Your task to perform on an android device: When is my next appointment? Image 0: 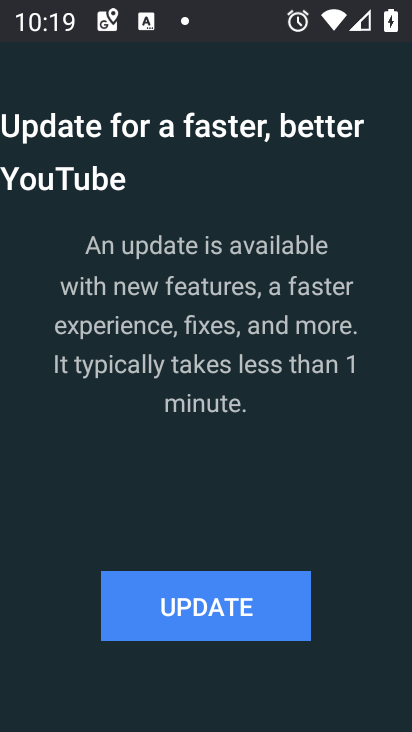
Step 0: press home button
Your task to perform on an android device: When is my next appointment? Image 1: 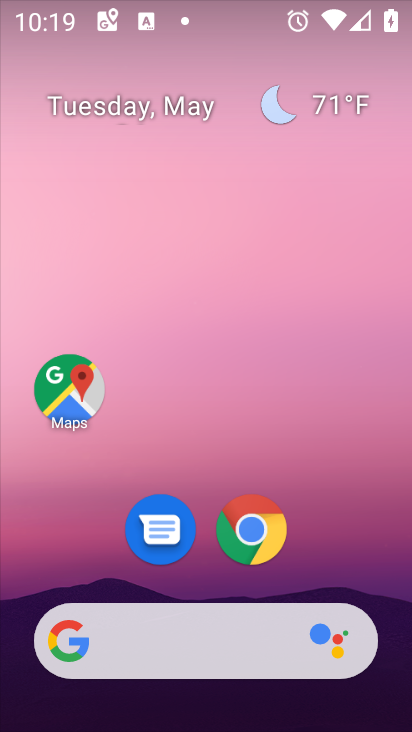
Step 1: drag from (243, 656) to (256, 144)
Your task to perform on an android device: When is my next appointment? Image 2: 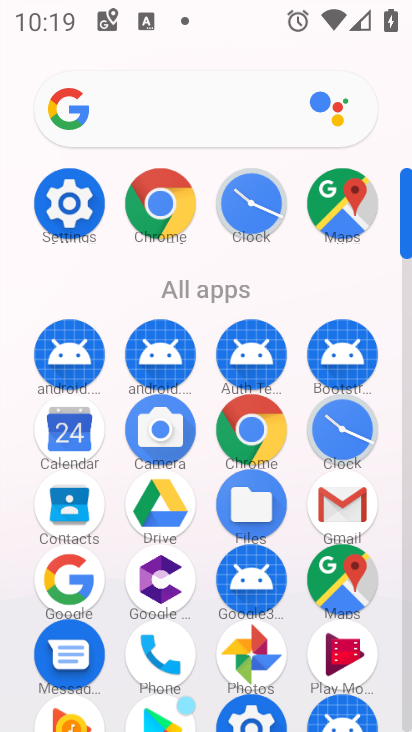
Step 2: click (256, 144)
Your task to perform on an android device: When is my next appointment? Image 3: 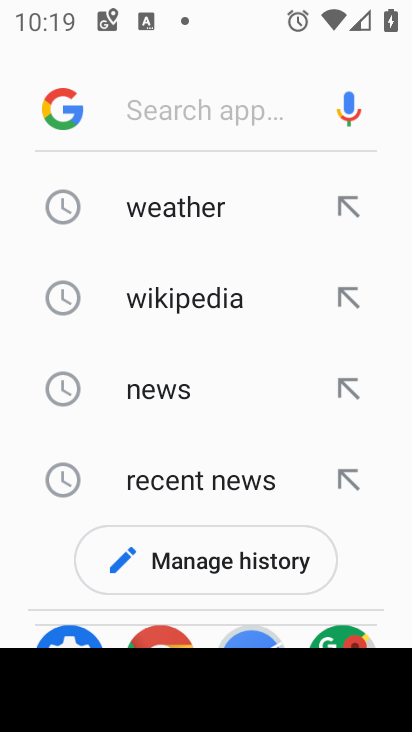
Step 3: click (256, 144)
Your task to perform on an android device: When is my next appointment? Image 4: 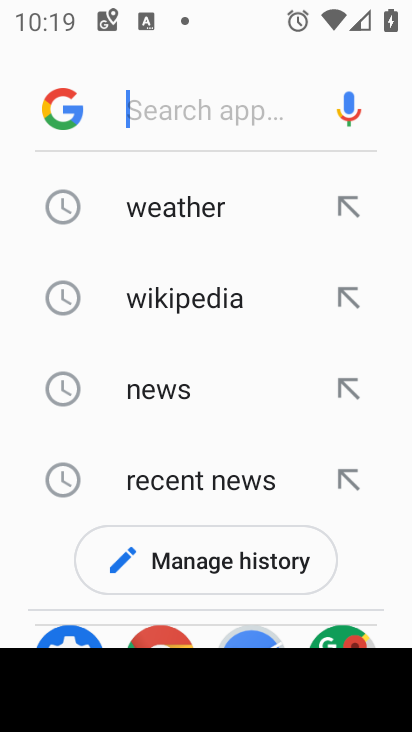
Step 4: click (256, 144)
Your task to perform on an android device: When is my next appointment? Image 5: 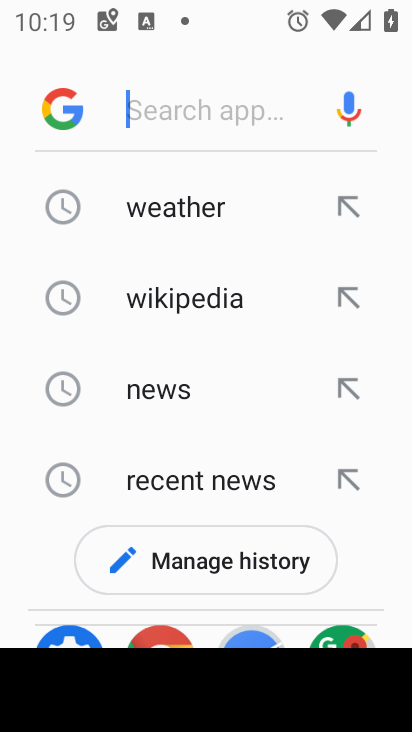
Step 5: click (256, 144)
Your task to perform on an android device: When is my next appointment? Image 6: 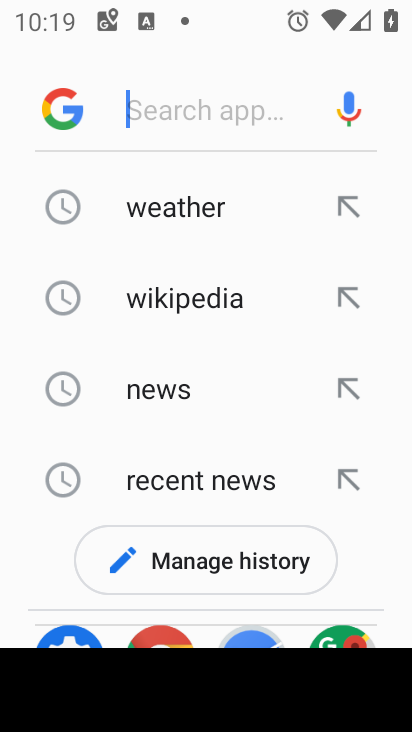
Step 6: click (256, 144)
Your task to perform on an android device: When is my next appointment? Image 7: 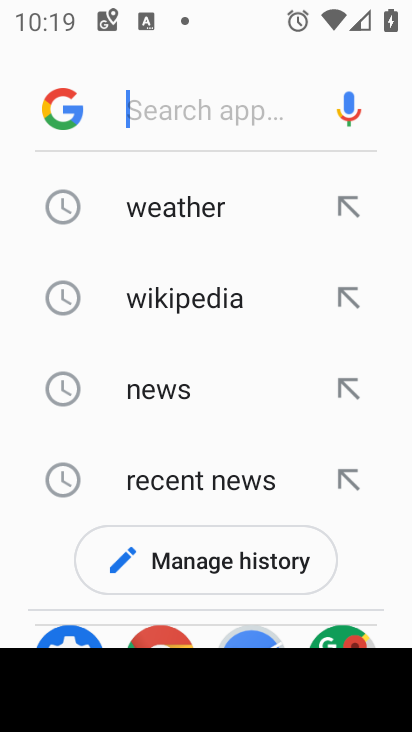
Step 7: press home button
Your task to perform on an android device: When is my next appointment? Image 8: 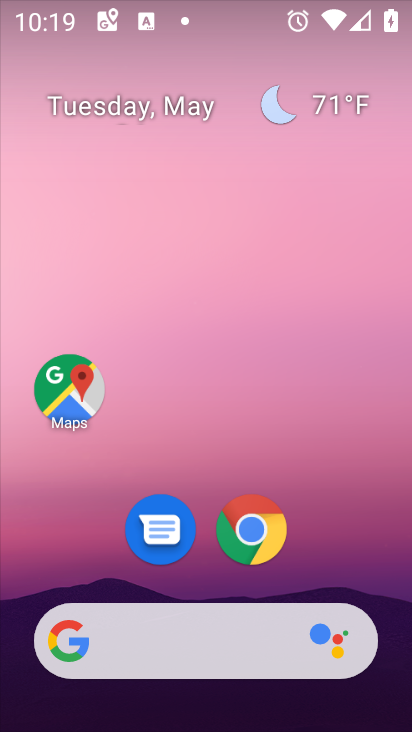
Step 8: drag from (231, 650) to (225, 311)
Your task to perform on an android device: When is my next appointment? Image 9: 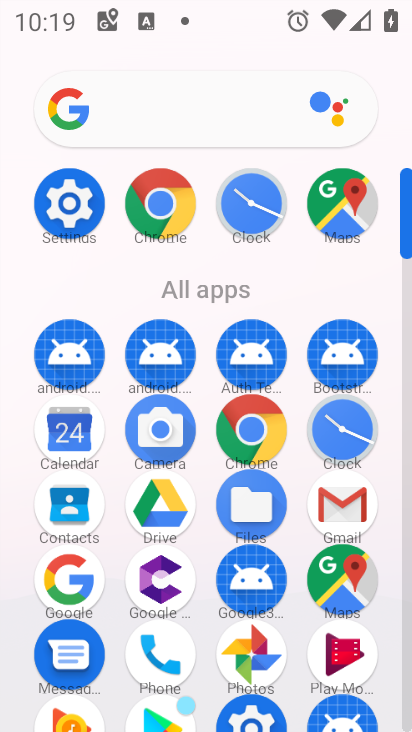
Step 9: drag from (265, 434) to (289, 233)
Your task to perform on an android device: When is my next appointment? Image 10: 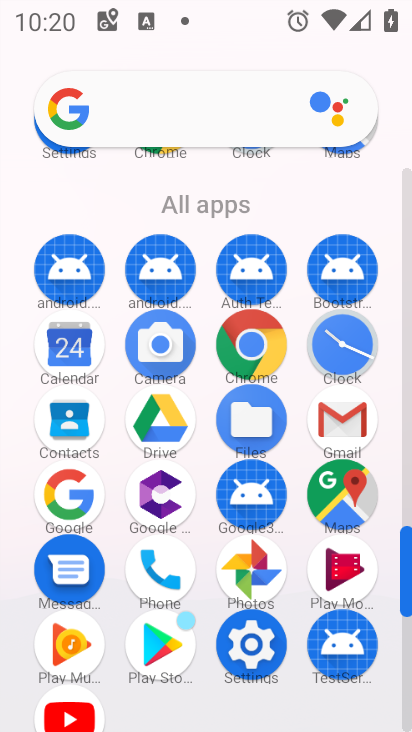
Step 10: click (86, 351)
Your task to perform on an android device: When is my next appointment? Image 11: 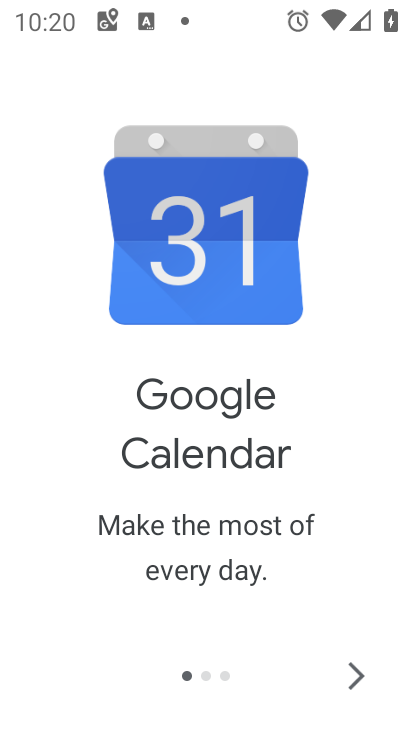
Step 11: click (357, 671)
Your task to perform on an android device: When is my next appointment? Image 12: 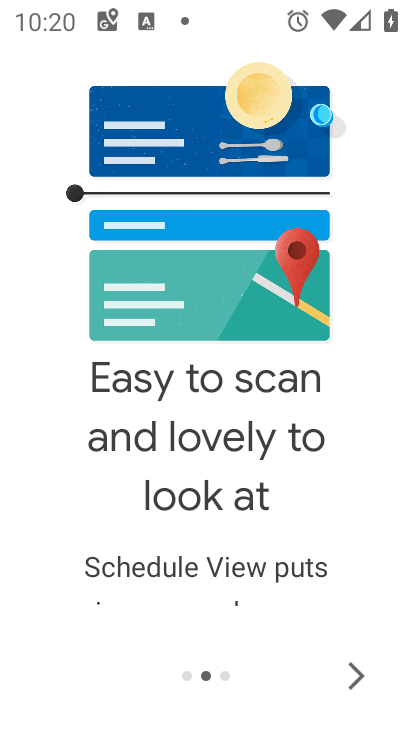
Step 12: click (359, 686)
Your task to perform on an android device: When is my next appointment? Image 13: 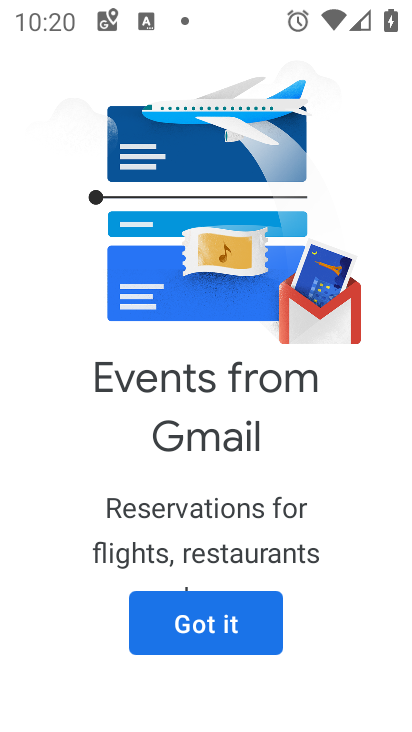
Step 13: click (359, 686)
Your task to perform on an android device: When is my next appointment? Image 14: 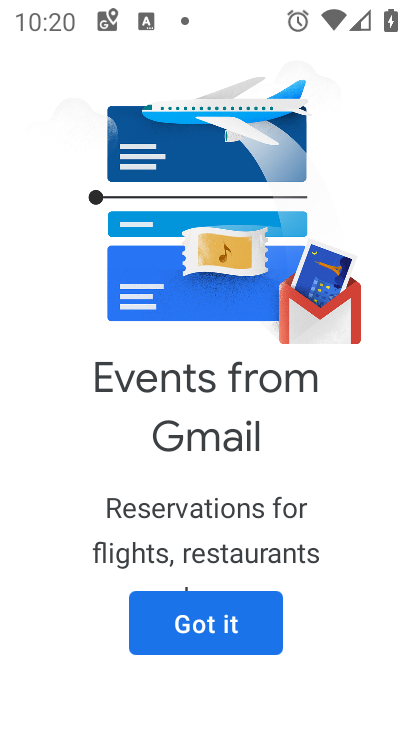
Step 14: click (242, 630)
Your task to perform on an android device: When is my next appointment? Image 15: 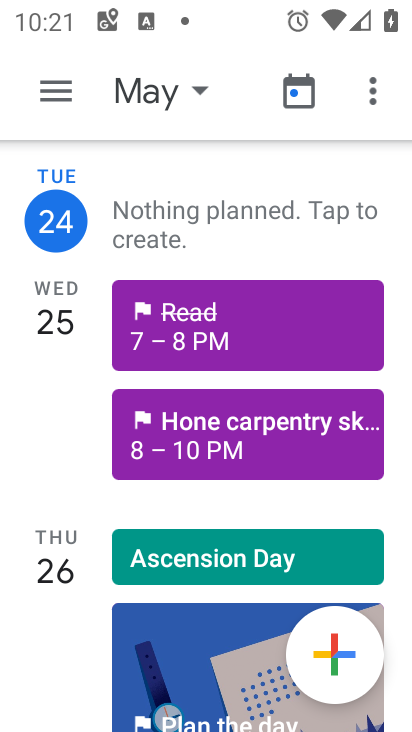
Step 15: click (64, 90)
Your task to perform on an android device: When is my next appointment? Image 16: 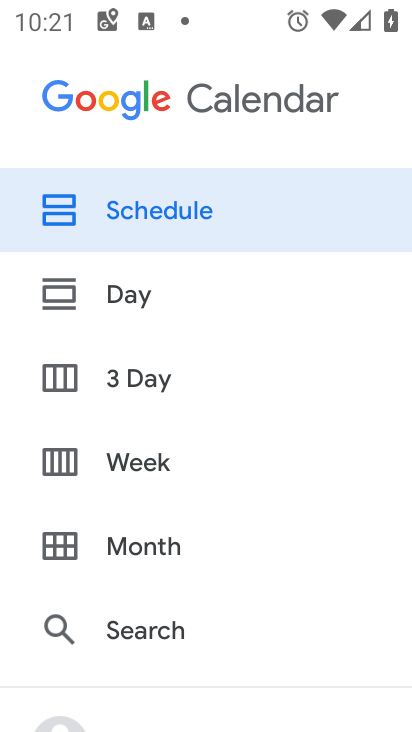
Step 16: drag from (187, 530) to (231, 162)
Your task to perform on an android device: When is my next appointment? Image 17: 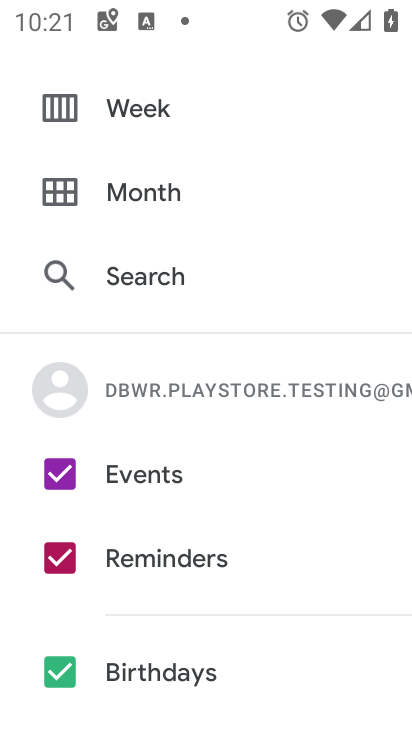
Step 17: drag from (187, 565) to (157, 228)
Your task to perform on an android device: When is my next appointment? Image 18: 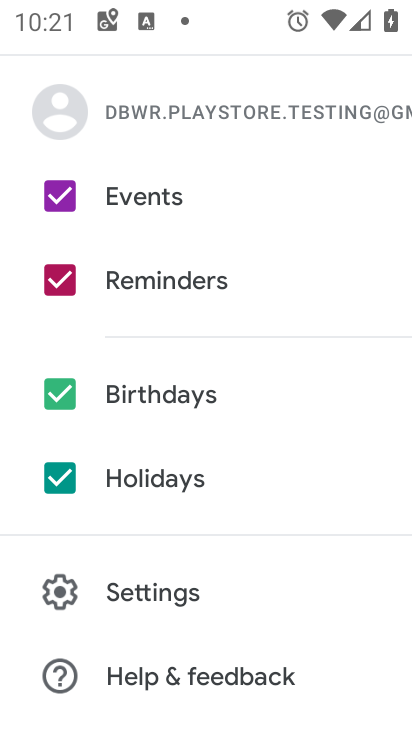
Step 18: click (58, 479)
Your task to perform on an android device: When is my next appointment? Image 19: 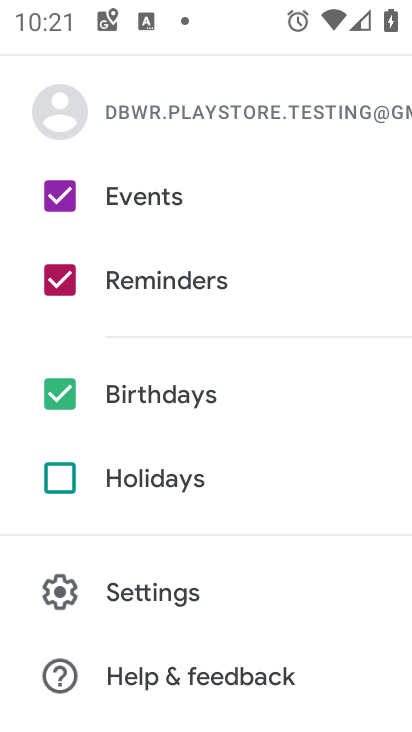
Step 19: click (63, 391)
Your task to perform on an android device: When is my next appointment? Image 20: 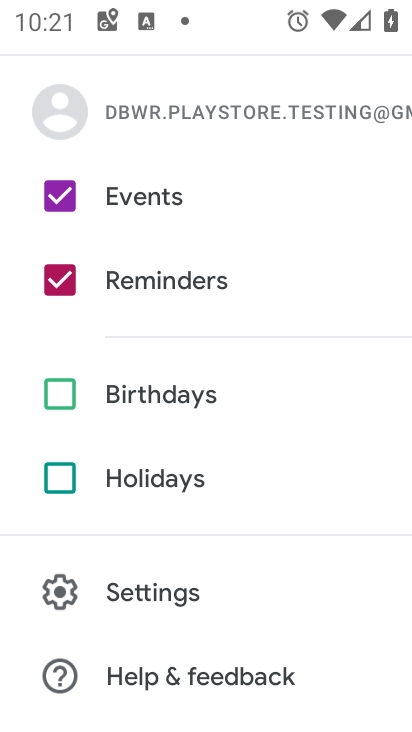
Step 20: task complete